Your task to perform on an android device: Open my contact list Image 0: 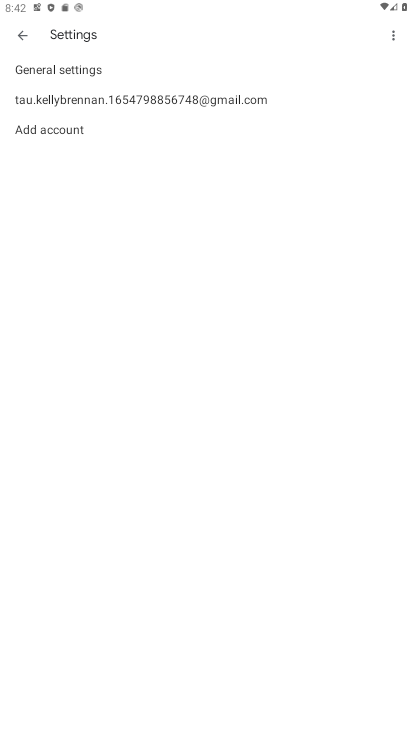
Step 0: press home button
Your task to perform on an android device: Open my contact list Image 1: 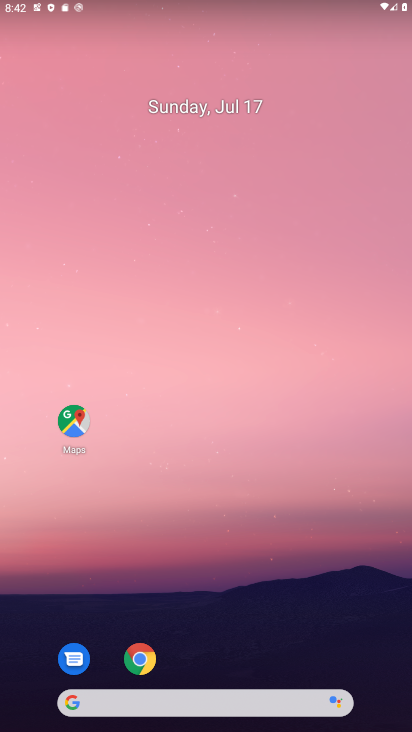
Step 1: drag from (205, 643) to (187, 247)
Your task to perform on an android device: Open my contact list Image 2: 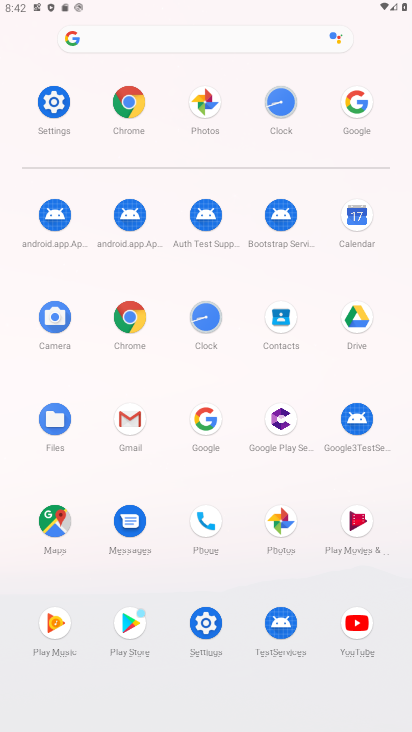
Step 2: click (292, 317)
Your task to perform on an android device: Open my contact list Image 3: 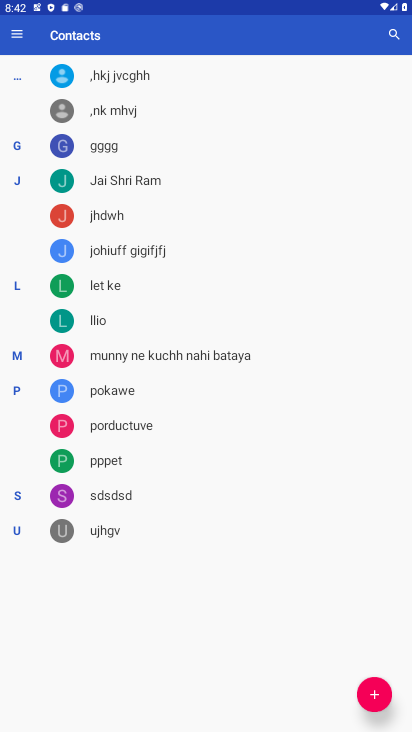
Step 3: task complete